Your task to perform on an android device: toggle pop-ups in chrome Image 0: 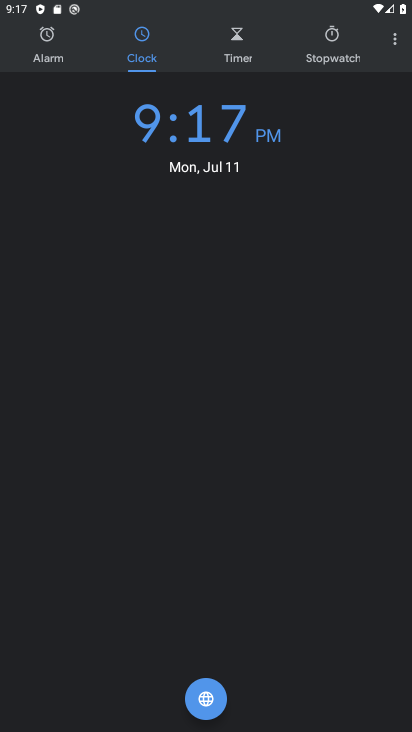
Step 0: press home button
Your task to perform on an android device: toggle pop-ups in chrome Image 1: 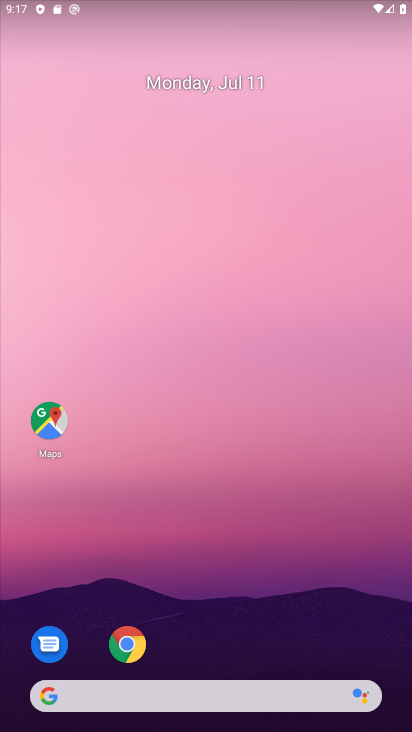
Step 1: click (123, 640)
Your task to perform on an android device: toggle pop-ups in chrome Image 2: 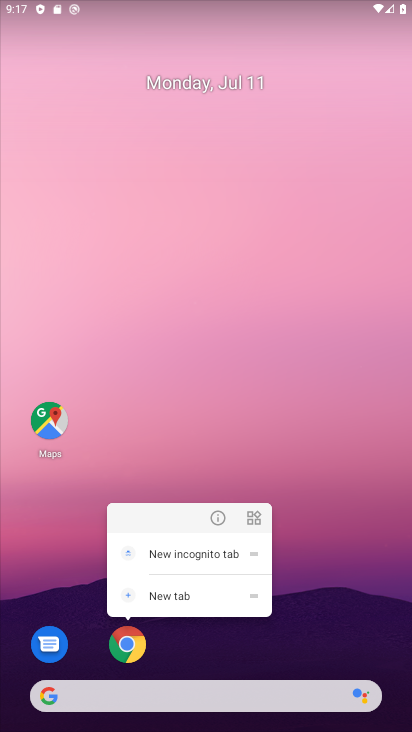
Step 2: click (121, 636)
Your task to perform on an android device: toggle pop-ups in chrome Image 3: 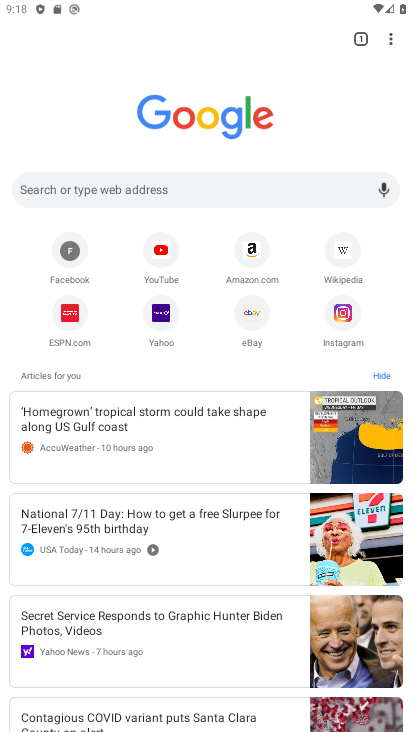
Step 3: click (389, 33)
Your task to perform on an android device: toggle pop-ups in chrome Image 4: 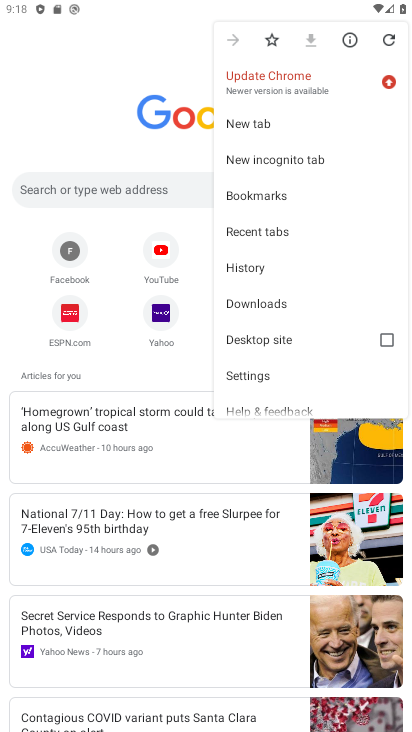
Step 4: click (280, 374)
Your task to perform on an android device: toggle pop-ups in chrome Image 5: 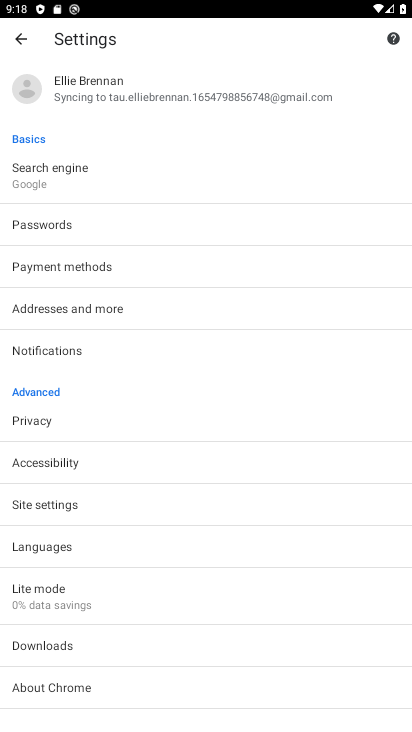
Step 5: click (95, 503)
Your task to perform on an android device: toggle pop-ups in chrome Image 6: 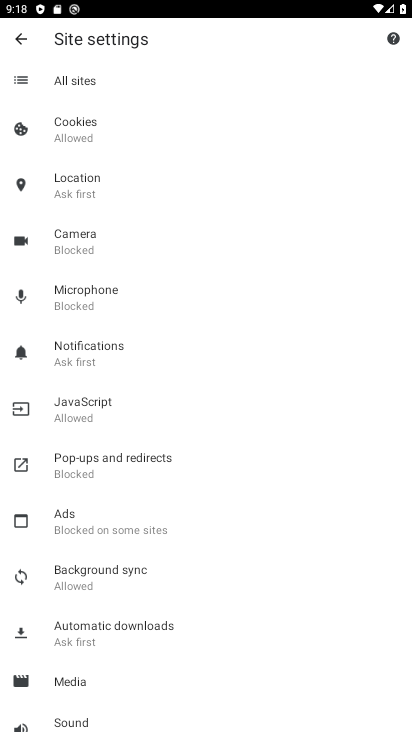
Step 6: click (126, 467)
Your task to perform on an android device: toggle pop-ups in chrome Image 7: 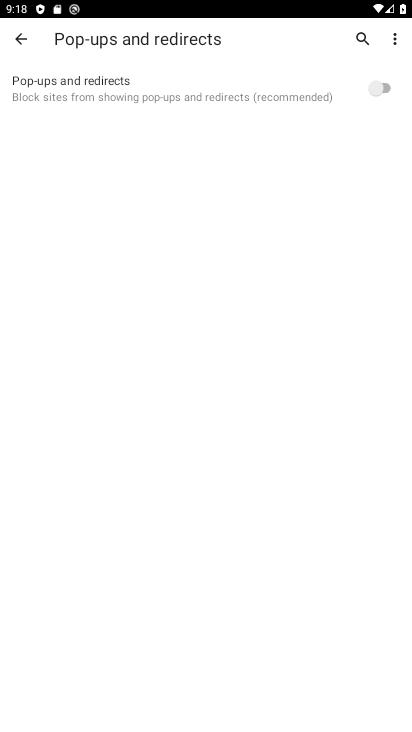
Step 7: click (383, 81)
Your task to perform on an android device: toggle pop-ups in chrome Image 8: 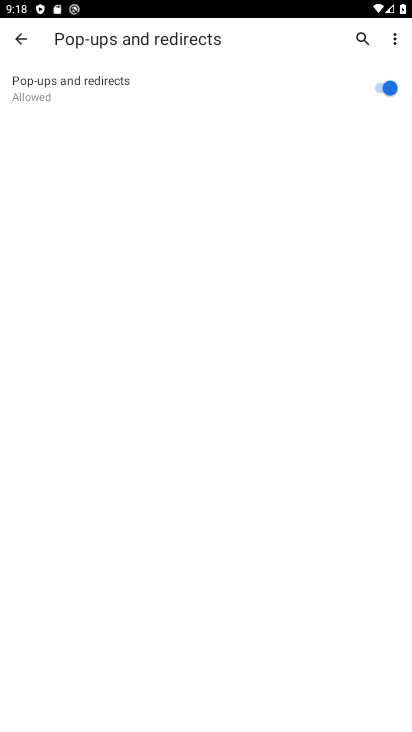
Step 8: task complete